Your task to perform on an android device: Search for Italian restaurants on Maps Image 0: 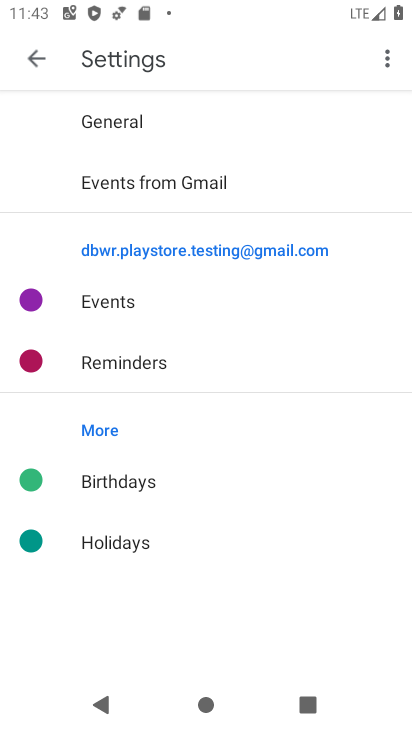
Step 0: press home button
Your task to perform on an android device: Search for Italian restaurants on Maps Image 1: 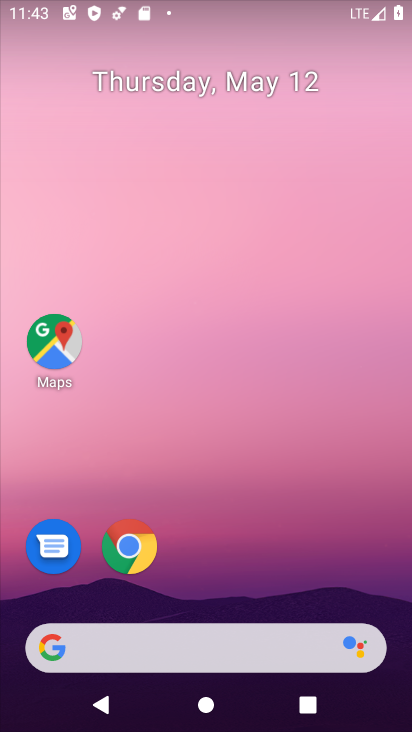
Step 1: click (56, 335)
Your task to perform on an android device: Search for Italian restaurants on Maps Image 2: 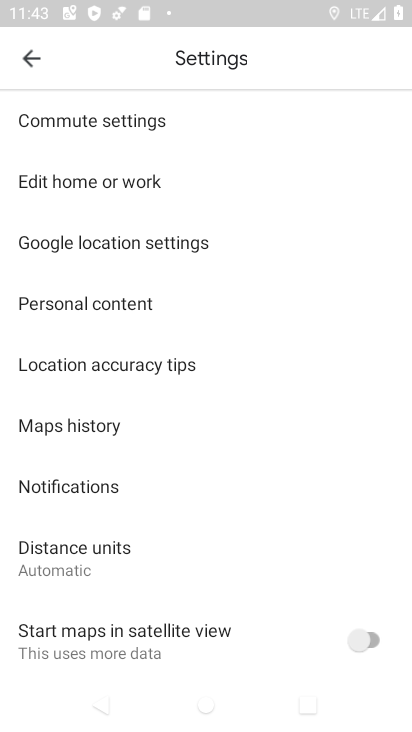
Step 2: click (31, 59)
Your task to perform on an android device: Search for Italian restaurants on Maps Image 3: 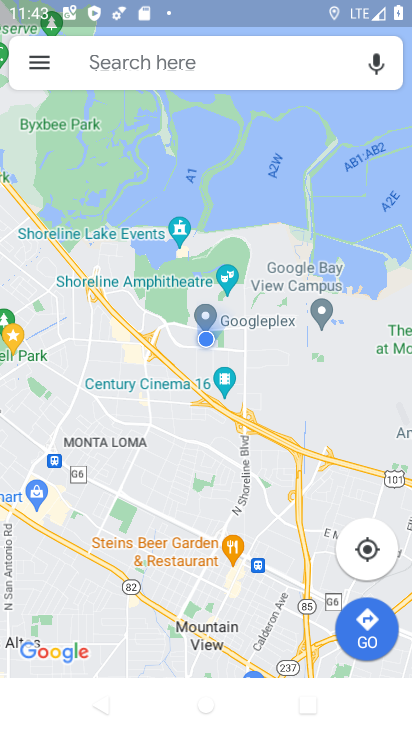
Step 3: click (110, 62)
Your task to perform on an android device: Search for Italian restaurants on Maps Image 4: 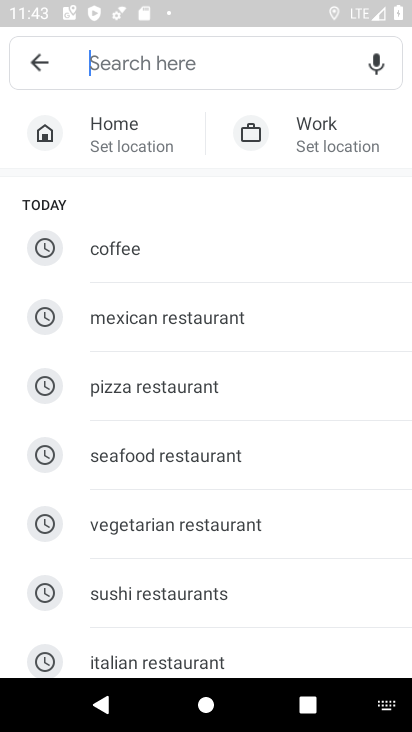
Step 4: click (130, 658)
Your task to perform on an android device: Search for Italian restaurants on Maps Image 5: 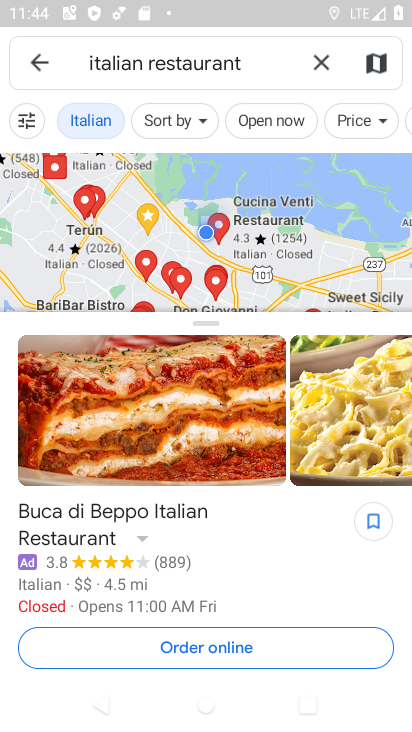
Step 5: task complete